Your task to perform on an android device: Find coffee shops on Maps Image 0: 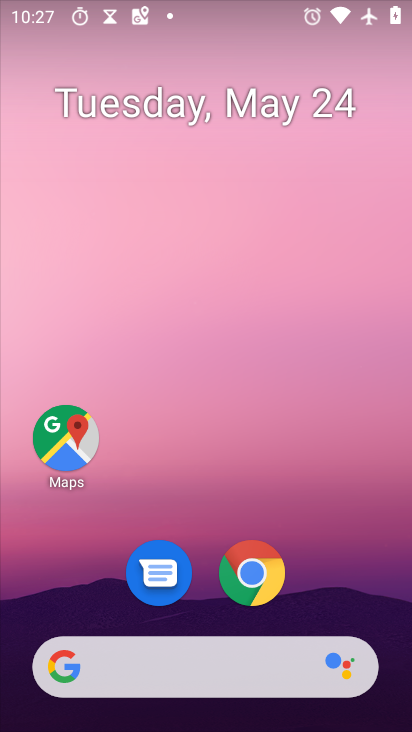
Step 0: drag from (369, 578) to (29, 338)
Your task to perform on an android device: Find coffee shops on Maps Image 1: 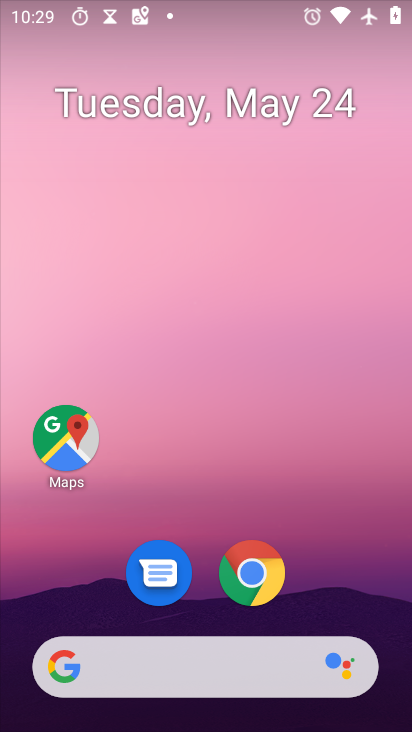
Step 1: drag from (390, 697) to (282, 64)
Your task to perform on an android device: Find coffee shops on Maps Image 2: 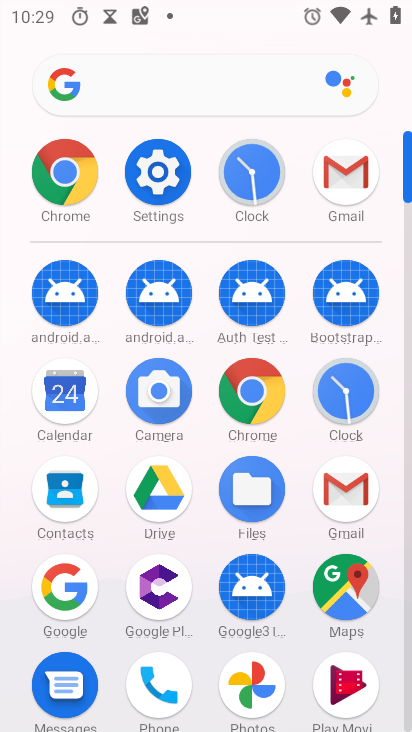
Step 2: click (346, 584)
Your task to perform on an android device: Find coffee shops on Maps Image 3: 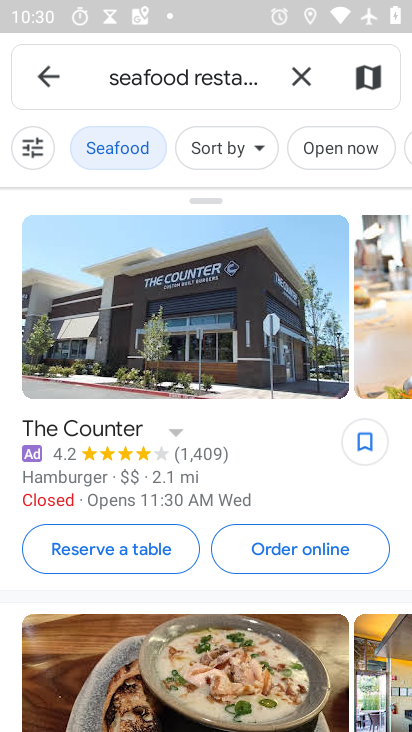
Step 3: click (288, 73)
Your task to perform on an android device: Find coffee shops on Maps Image 4: 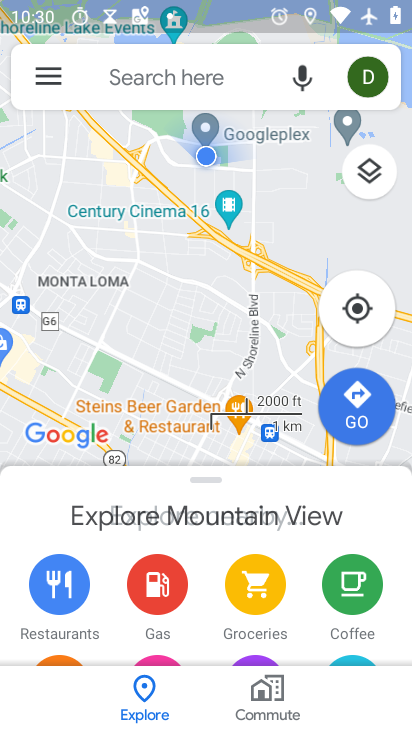
Step 4: click (180, 85)
Your task to perform on an android device: Find coffee shops on Maps Image 5: 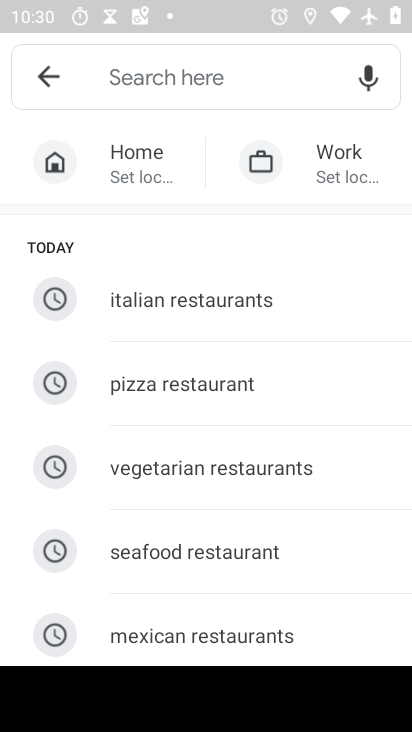
Step 5: type "coffee shops"
Your task to perform on an android device: Find coffee shops on Maps Image 6: 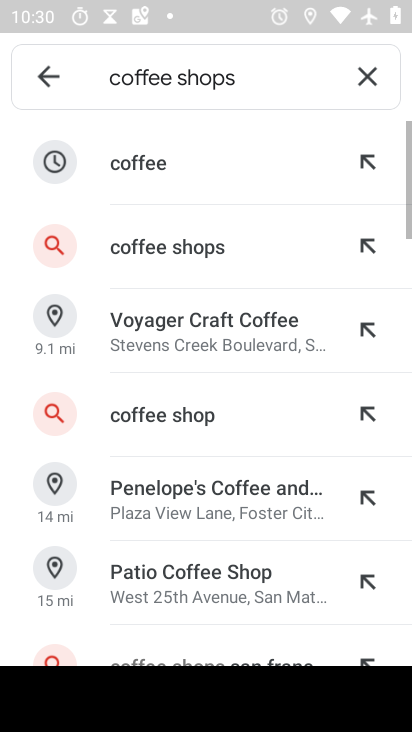
Step 6: click (140, 245)
Your task to perform on an android device: Find coffee shops on Maps Image 7: 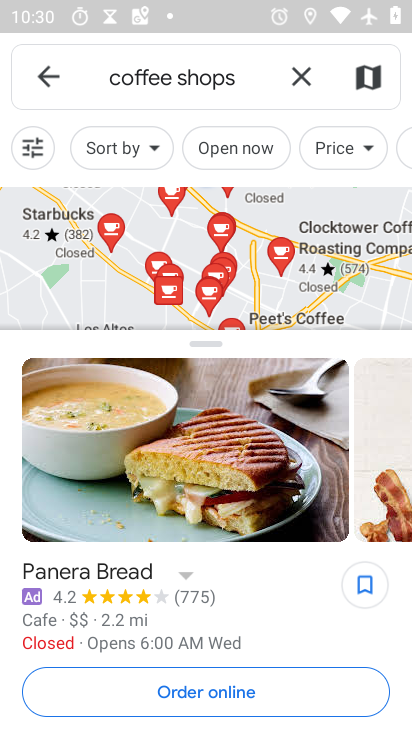
Step 7: task complete